Your task to perform on an android device: find snoozed emails in the gmail app Image 0: 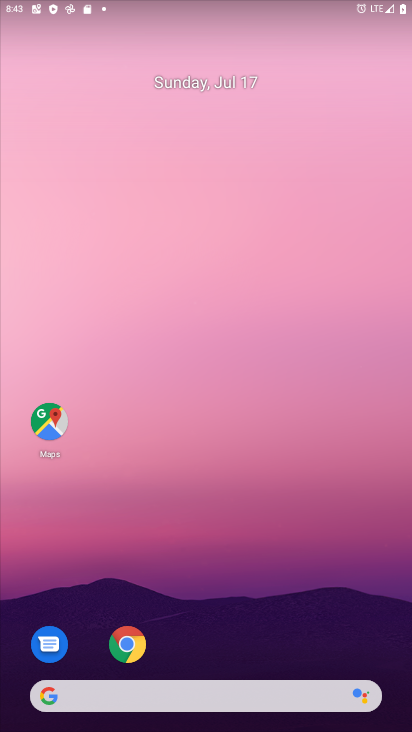
Step 0: drag from (189, 442) to (68, 2)
Your task to perform on an android device: find snoozed emails in the gmail app Image 1: 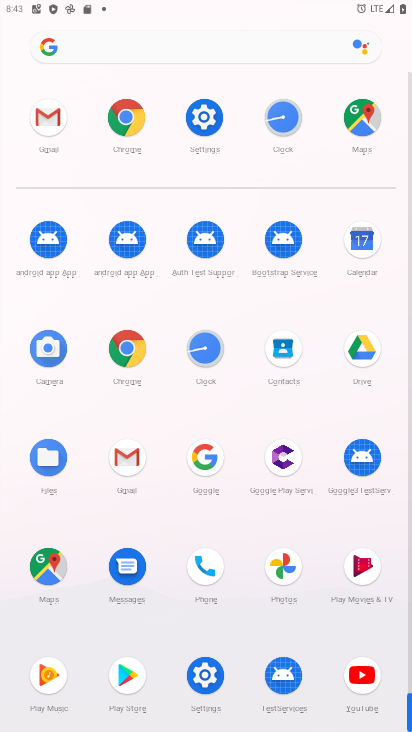
Step 1: click (146, 453)
Your task to perform on an android device: find snoozed emails in the gmail app Image 2: 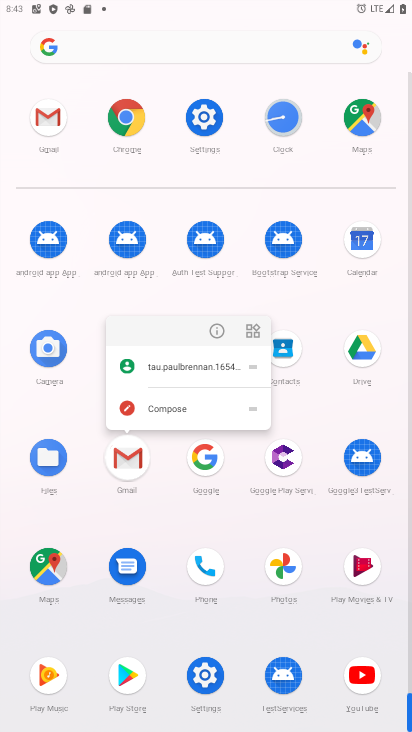
Step 2: click (126, 459)
Your task to perform on an android device: find snoozed emails in the gmail app Image 3: 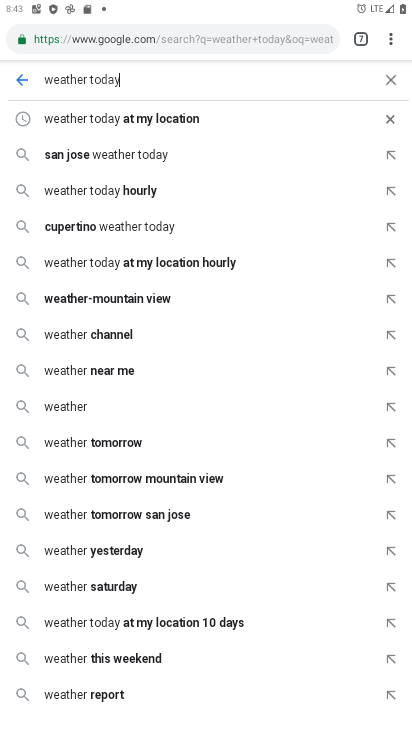
Step 3: press home button
Your task to perform on an android device: find snoozed emails in the gmail app Image 4: 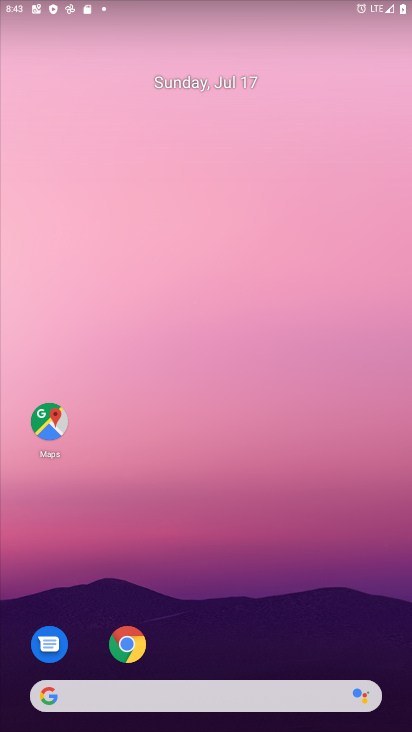
Step 4: drag from (215, 707) to (239, 169)
Your task to perform on an android device: find snoozed emails in the gmail app Image 5: 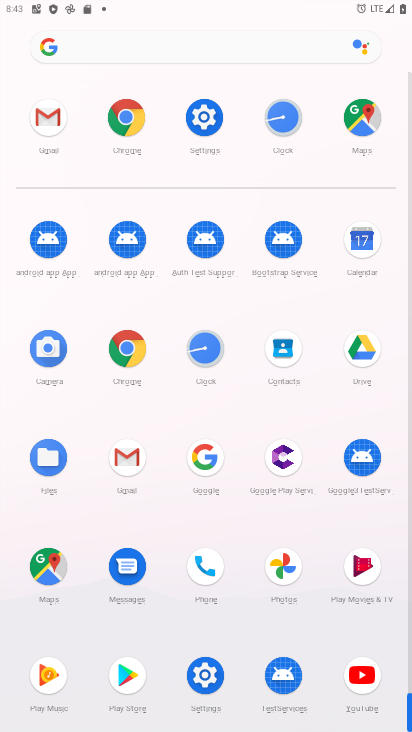
Step 5: click (131, 452)
Your task to perform on an android device: find snoozed emails in the gmail app Image 6: 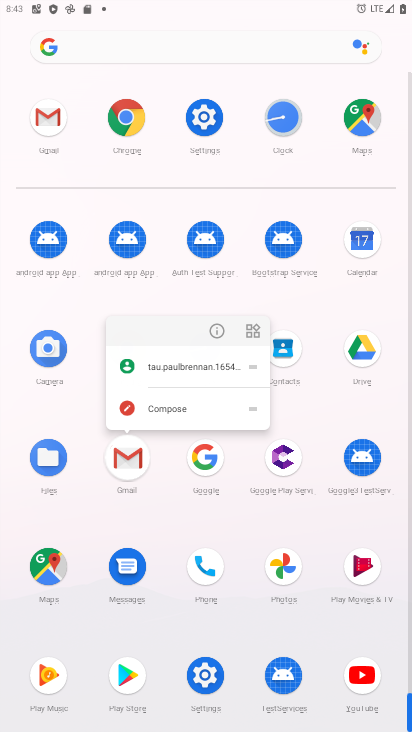
Step 6: click (128, 458)
Your task to perform on an android device: find snoozed emails in the gmail app Image 7: 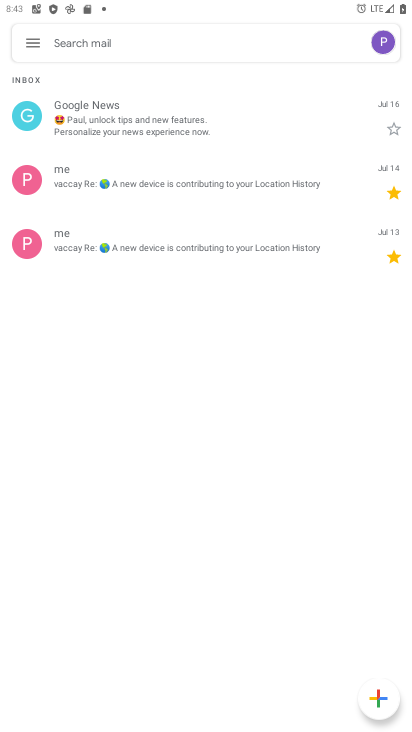
Step 7: click (32, 42)
Your task to perform on an android device: find snoozed emails in the gmail app Image 8: 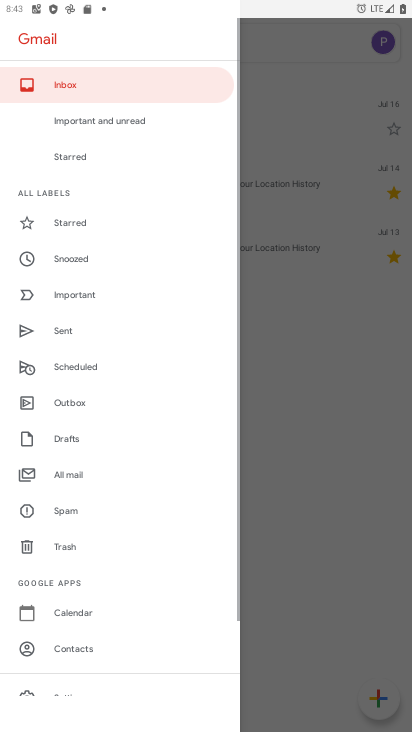
Step 8: click (32, 42)
Your task to perform on an android device: find snoozed emails in the gmail app Image 9: 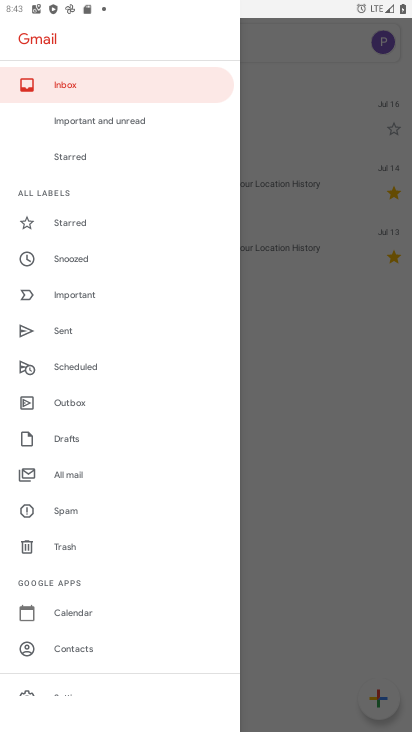
Step 9: click (74, 258)
Your task to perform on an android device: find snoozed emails in the gmail app Image 10: 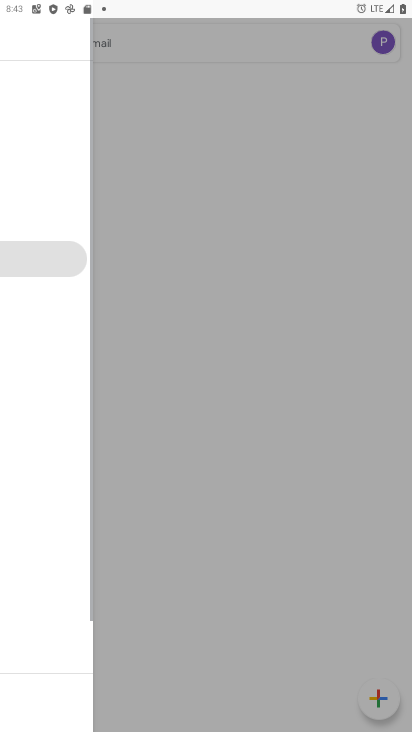
Step 10: click (74, 257)
Your task to perform on an android device: find snoozed emails in the gmail app Image 11: 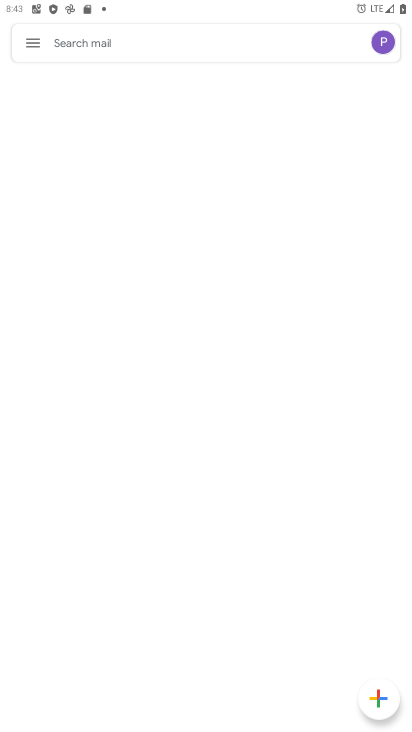
Step 11: click (74, 257)
Your task to perform on an android device: find snoozed emails in the gmail app Image 12: 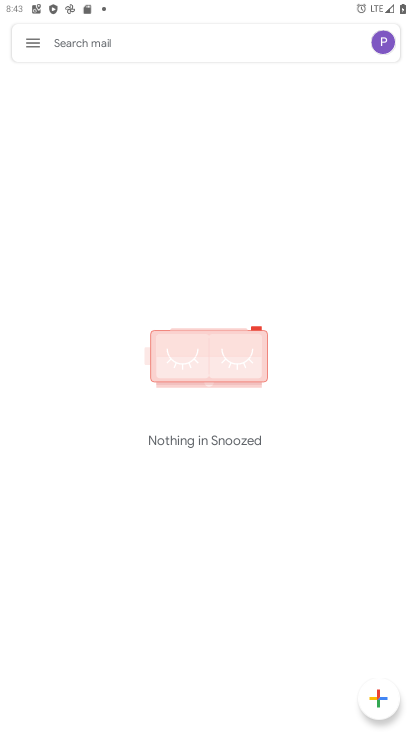
Step 12: task complete